Your task to perform on an android device: Go to display settings Image 0: 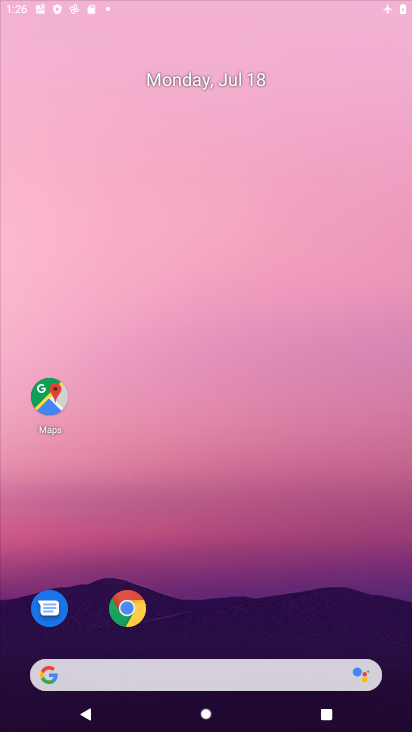
Step 0: drag from (372, 610) to (203, 7)
Your task to perform on an android device: Go to display settings Image 1: 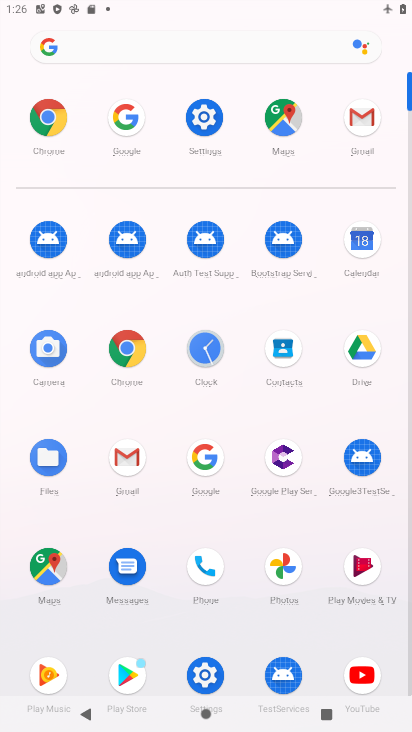
Step 1: click (215, 668)
Your task to perform on an android device: Go to display settings Image 2: 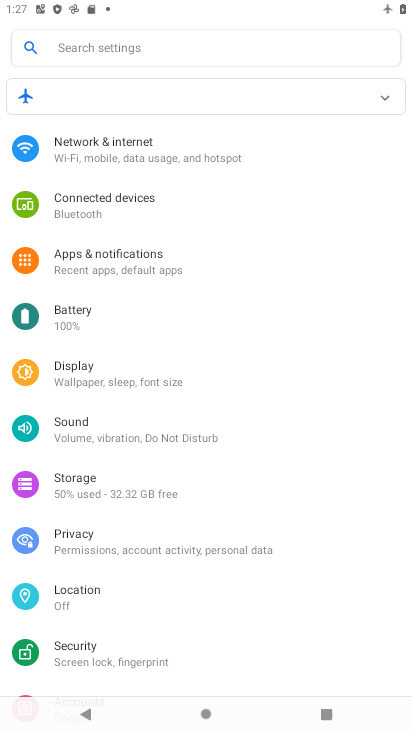
Step 2: click (90, 365)
Your task to perform on an android device: Go to display settings Image 3: 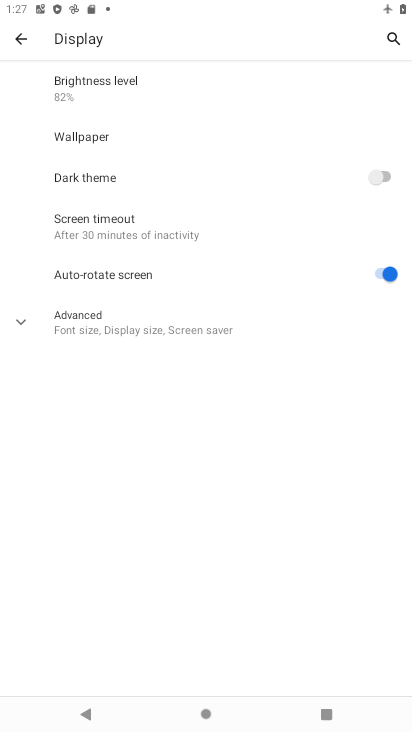
Step 3: task complete